Your task to perform on an android device: Open the calendar app, open the side menu, and click the "Day" option Image 0: 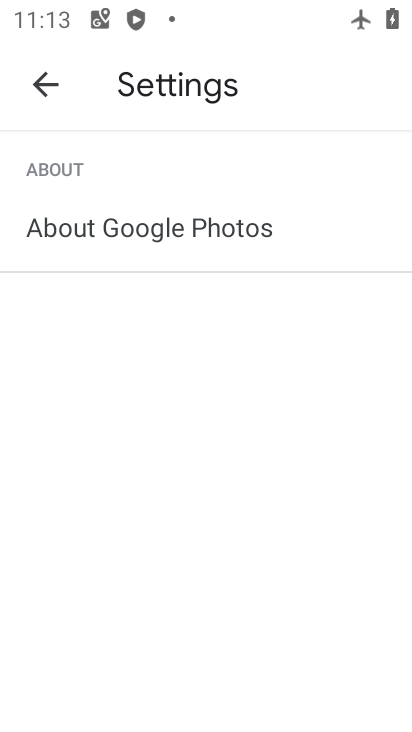
Step 0: press home button
Your task to perform on an android device: Open the calendar app, open the side menu, and click the "Day" option Image 1: 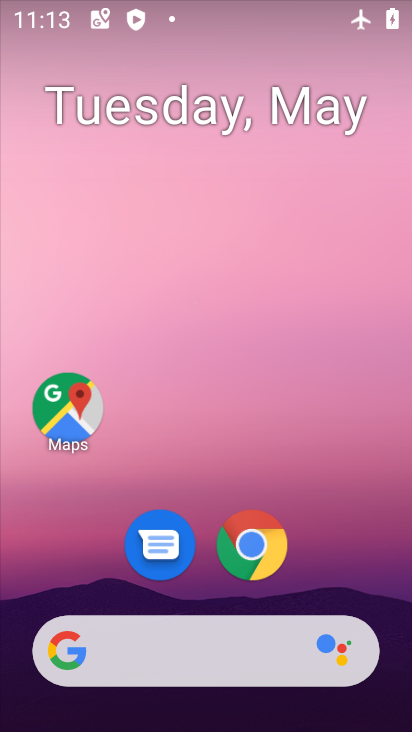
Step 1: drag from (216, 579) to (230, 64)
Your task to perform on an android device: Open the calendar app, open the side menu, and click the "Day" option Image 2: 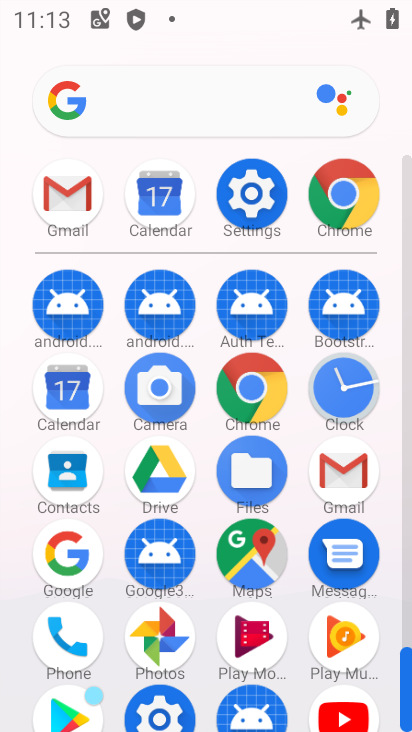
Step 2: click (79, 396)
Your task to perform on an android device: Open the calendar app, open the side menu, and click the "Day" option Image 3: 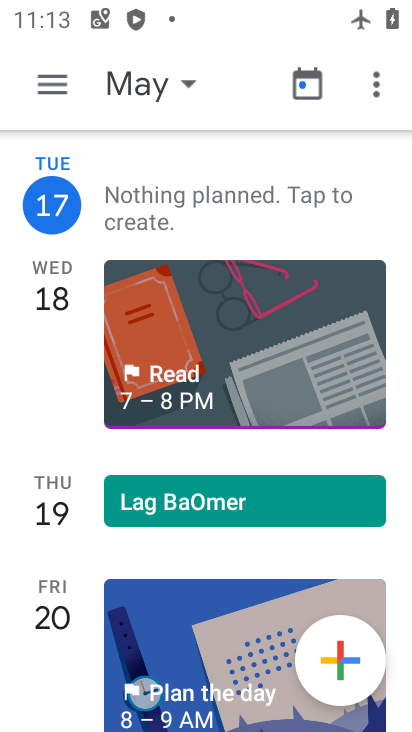
Step 3: click (65, 89)
Your task to perform on an android device: Open the calendar app, open the side menu, and click the "Day" option Image 4: 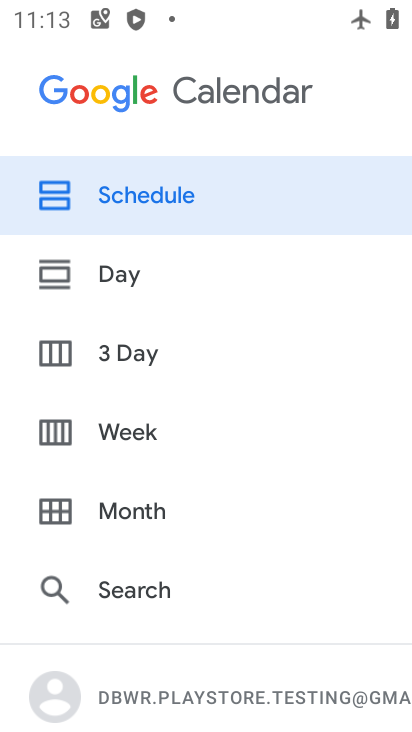
Step 4: click (182, 284)
Your task to perform on an android device: Open the calendar app, open the side menu, and click the "Day" option Image 5: 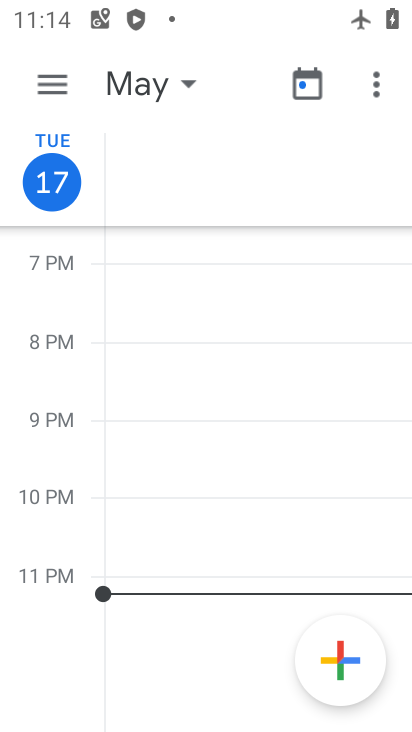
Step 5: task complete